Your task to perform on an android device: Open wifi settings Image 0: 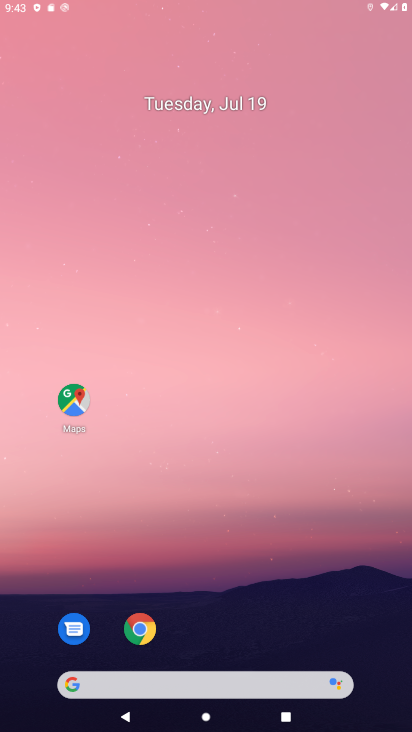
Step 0: click (249, 8)
Your task to perform on an android device: Open wifi settings Image 1: 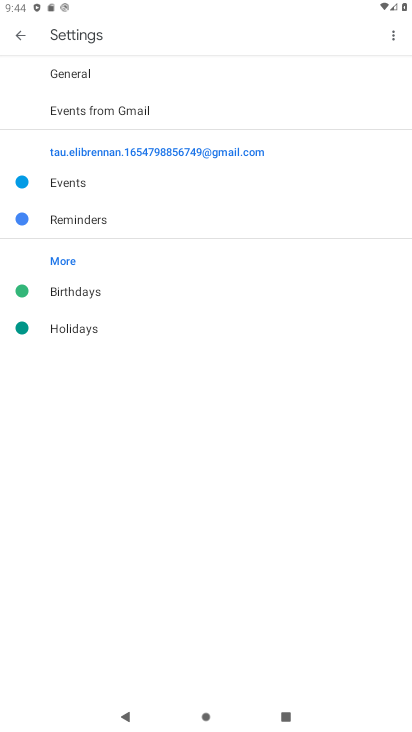
Step 1: press home button
Your task to perform on an android device: Open wifi settings Image 2: 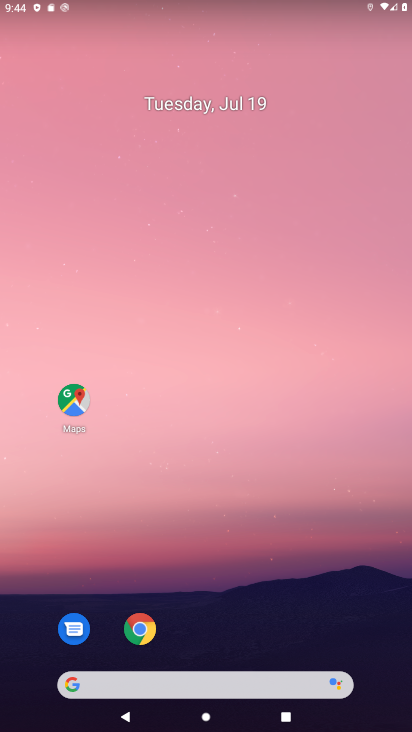
Step 2: drag from (199, 628) to (343, 1)
Your task to perform on an android device: Open wifi settings Image 3: 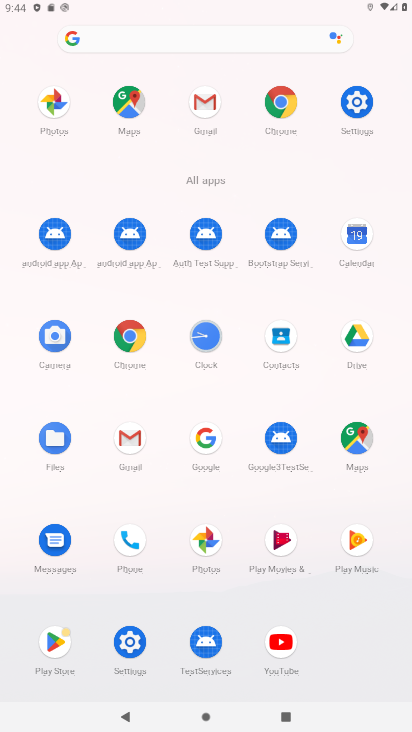
Step 3: click (131, 652)
Your task to perform on an android device: Open wifi settings Image 4: 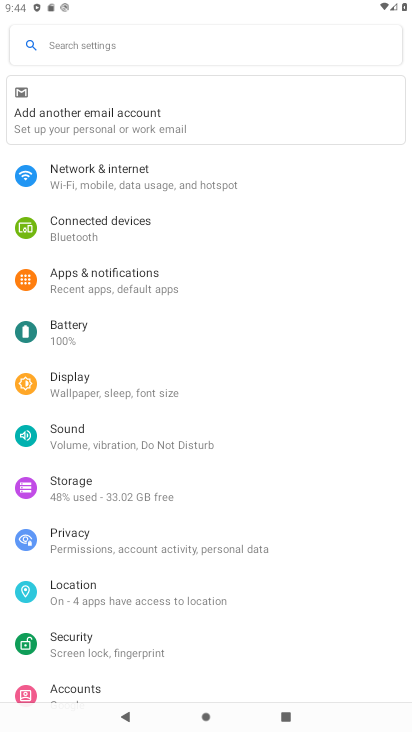
Step 4: click (140, 177)
Your task to perform on an android device: Open wifi settings Image 5: 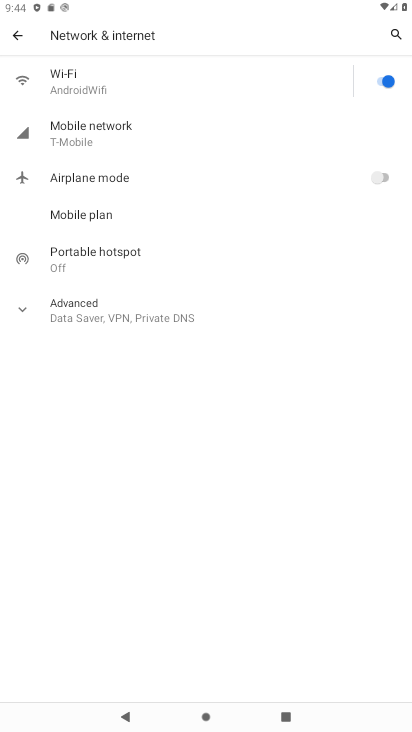
Step 5: click (97, 84)
Your task to perform on an android device: Open wifi settings Image 6: 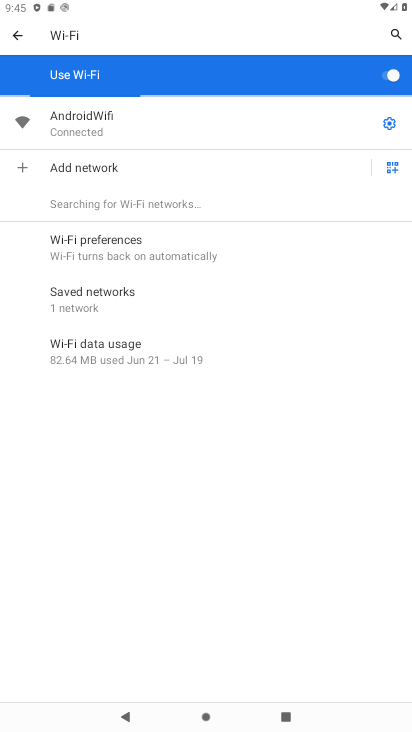
Step 6: task complete